Your task to perform on an android device: What's the weather going to be this weekend? Image 0: 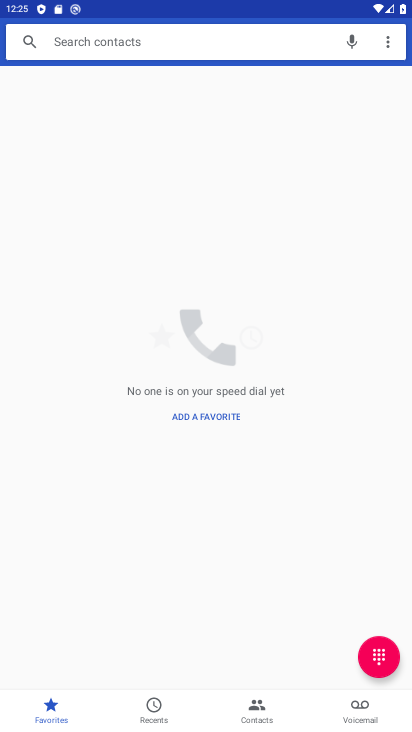
Step 0: press home button
Your task to perform on an android device: What's the weather going to be this weekend? Image 1: 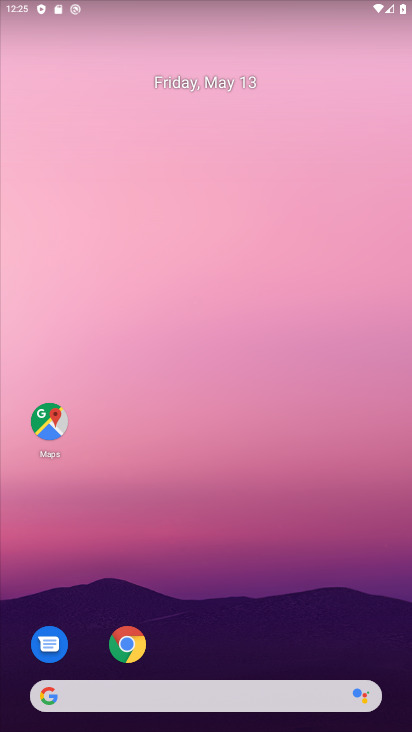
Step 1: click (186, 690)
Your task to perform on an android device: What's the weather going to be this weekend? Image 2: 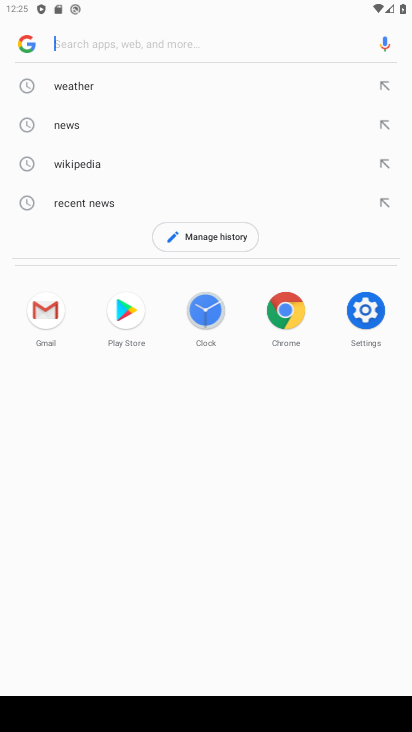
Step 2: click (134, 90)
Your task to perform on an android device: What's the weather going to be this weekend? Image 3: 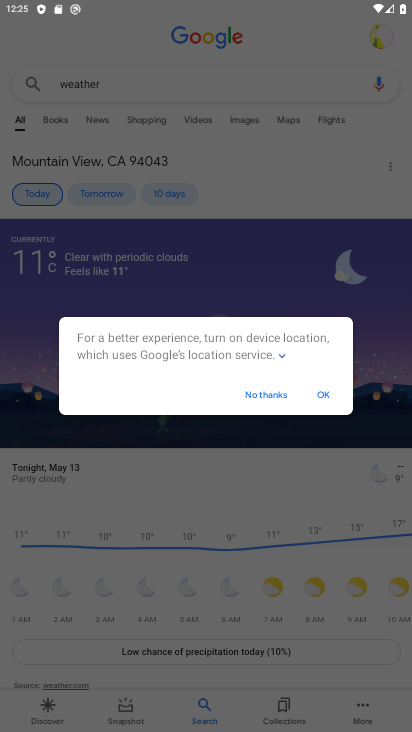
Step 3: click (324, 397)
Your task to perform on an android device: What's the weather going to be this weekend? Image 4: 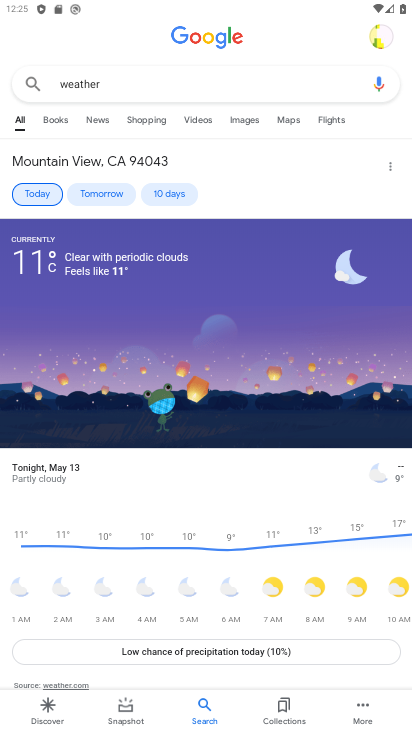
Step 4: click (172, 188)
Your task to perform on an android device: What's the weather going to be this weekend? Image 5: 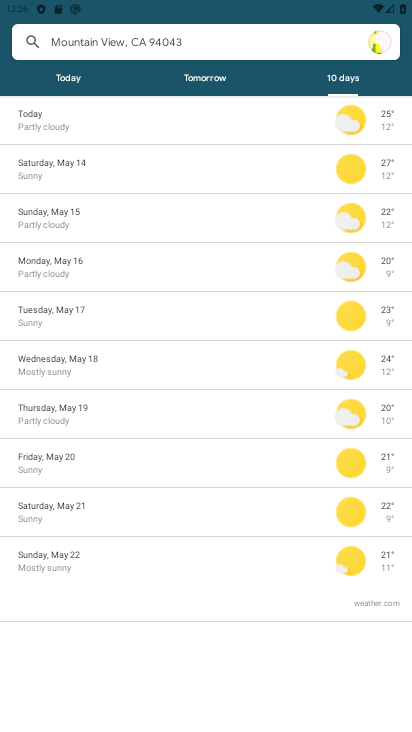
Step 5: task complete